Your task to perform on an android device: Turn off the flashlight Image 0: 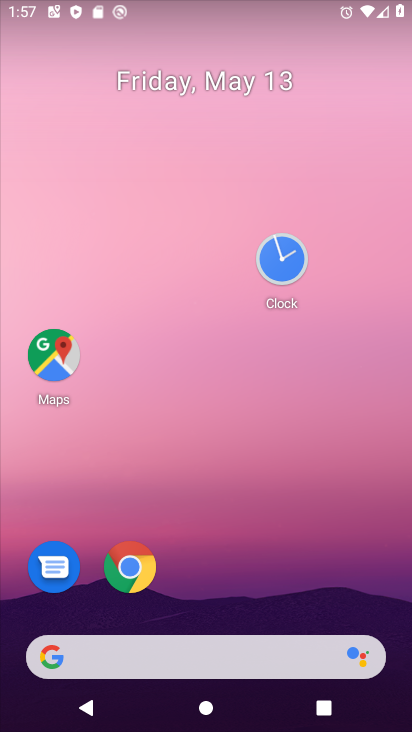
Step 0: drag from (325, 591) to (288, 109)
Your task to perform on an android device: Turn off the flashlight Image 1: 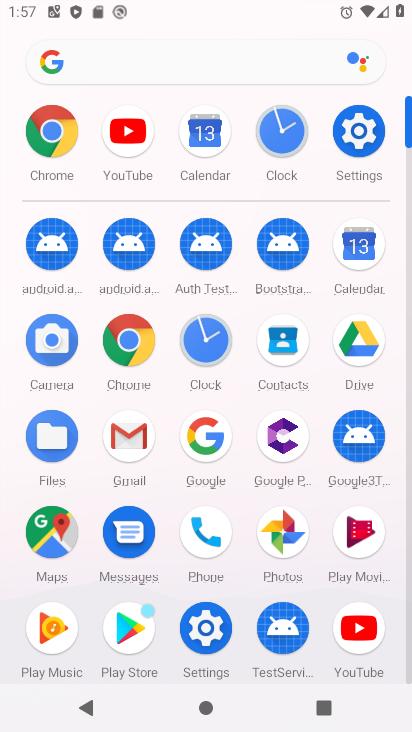
Step 1: click (357, 128)
Your task to perform on an android device: Turn off the flashlight Image 2: 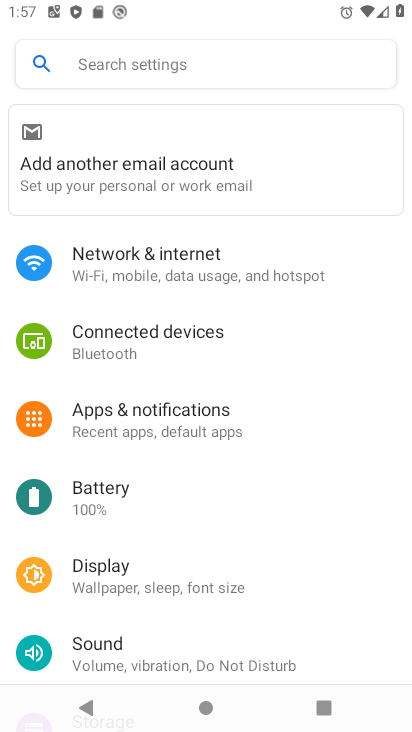
Step 2: click (177, 355)
Your task to perform on an android device: Turn off the flashlight Image 3: 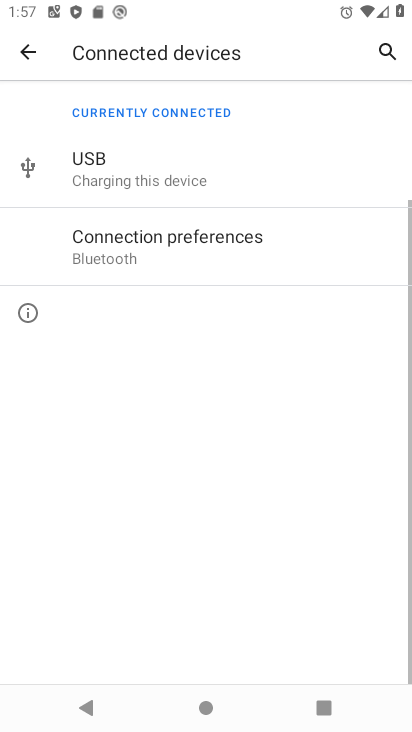
Step 3: task complete